Your task to perform on an android device: empty trash in google photos Image 0: 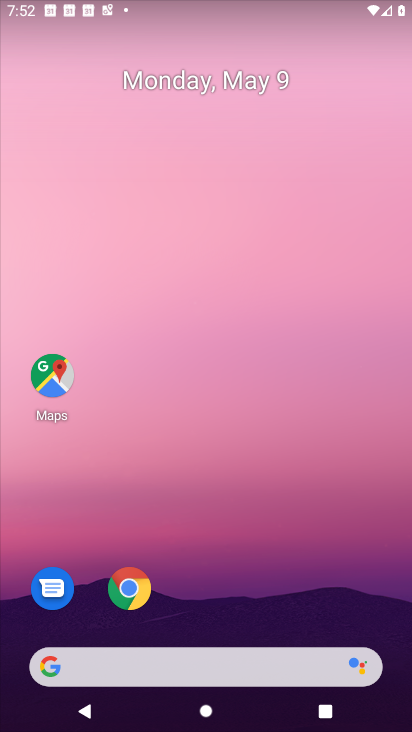
Step 0: drag from (190, 642) to (355, 60)
Your task to perform on an android device: empty trash in google photos Image 1: 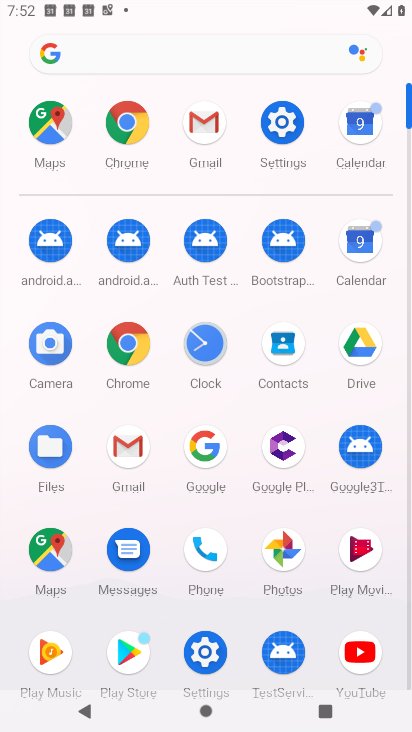
Step 1: click (286, 557)
Your task to perform on an android device: empty trash in google photos Image 2: 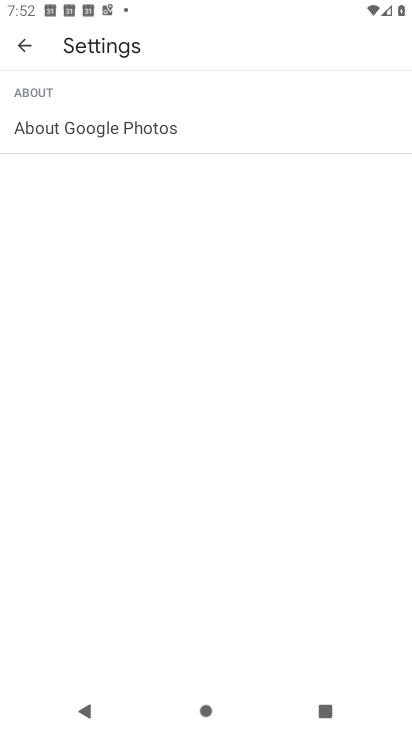
Step 2: click (25, 45)
Your task to perform on an android device: empty trash in google photos Image 3: 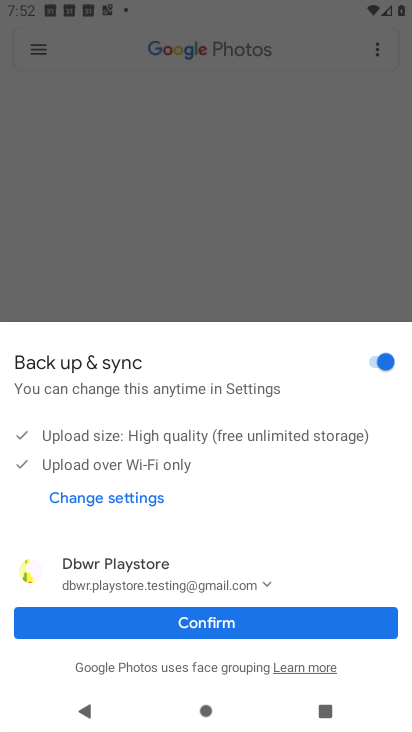
Step 3: click (192, 626)
Your task to perform on an android device: empty trash in google photos Image 4: 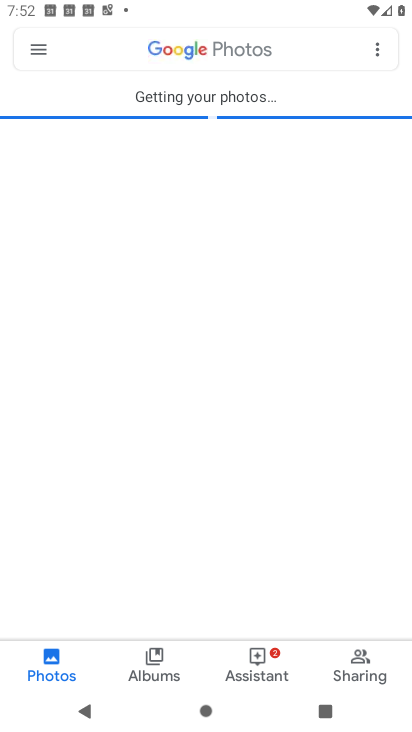
Step 4: click (37, 49)
Your task to perform on an android device: empty trash in google photos Image 5: 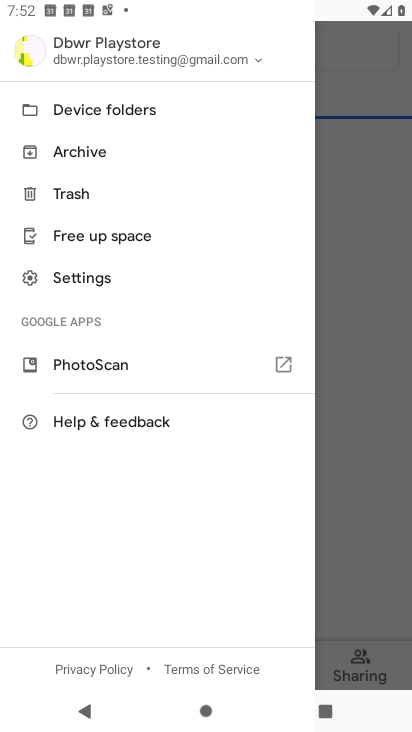
Step 5: click (80, 199)
Your task to perform on an android device: empty trash in google photos Image 6: 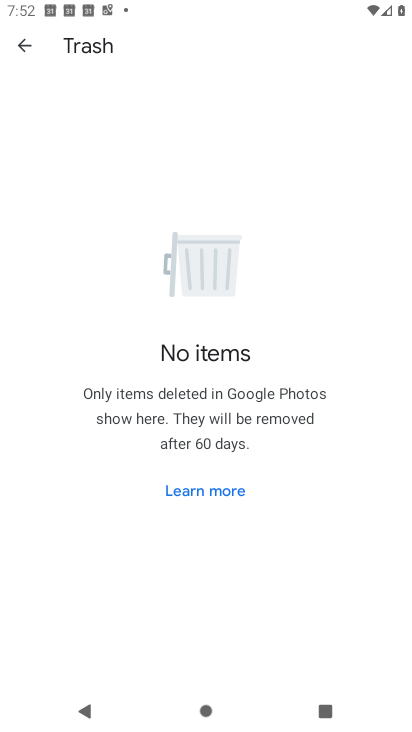
Step 6: task complete